Your task to perform on an android device: open a bookmark in the chrome app Image 0: 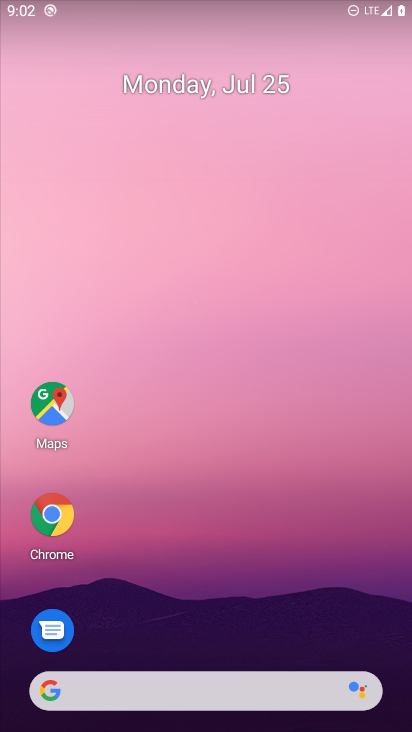
Step 0: click (26, 513)
Your task to perform on an android device: open a bookmark in the chrome app Image 1: 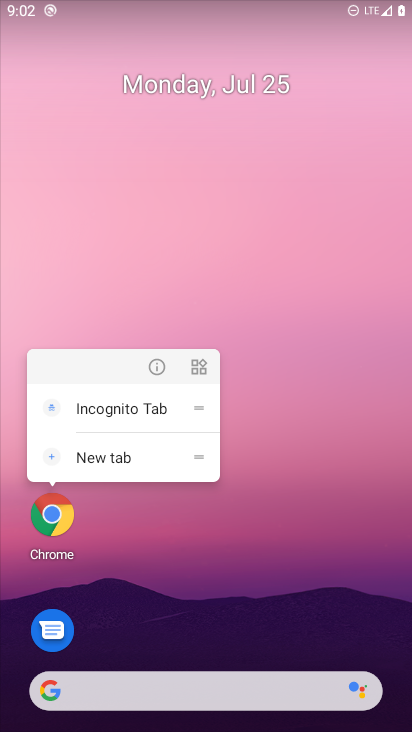
Step 1: click (65, 541)
Your task to perform on an android device: open a bookmark in the chrome app Image 2: 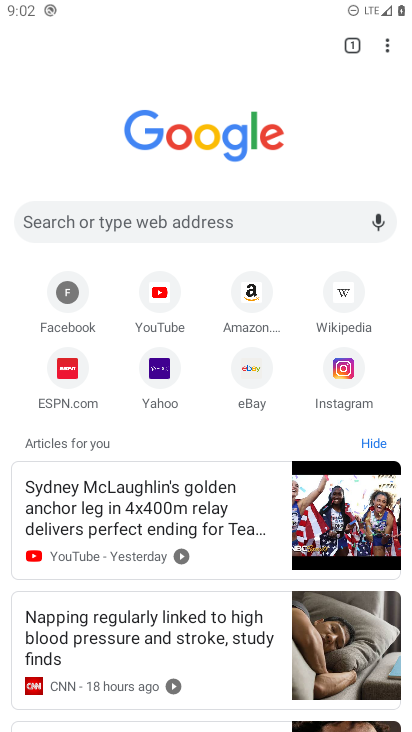
Step 2: click (386, 39)
Your task to perform on an android device: open a bookmark in the chrome app Image 3: 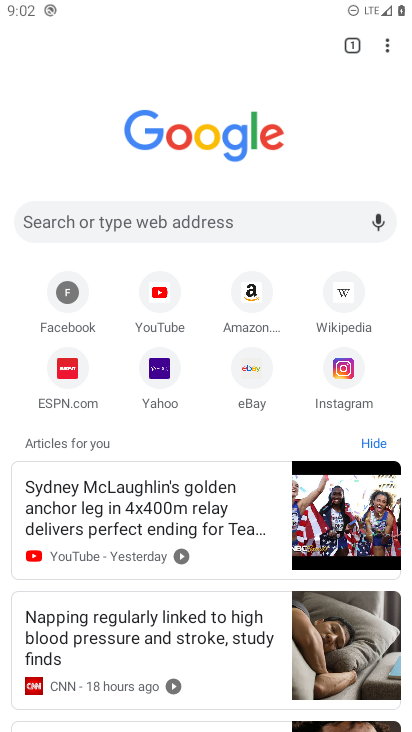
Step 3: click (387, 41)
Your task to perform on an android device: open a bookmark in the chrome app Image 4: 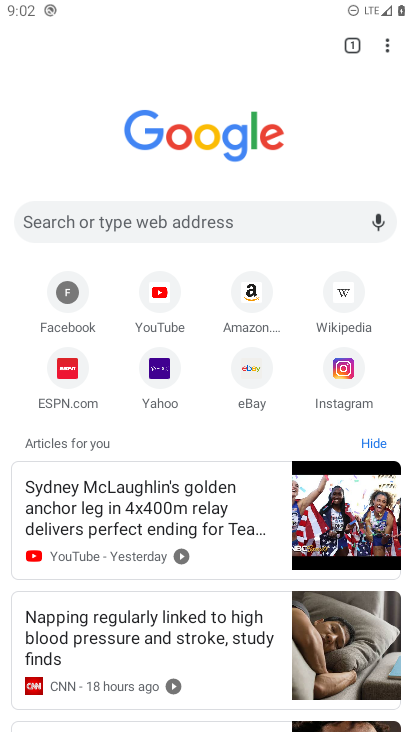
Step 4: click (390, 40)
Your task to perform on an android device: open a bookmark in the chrome app Image 5: 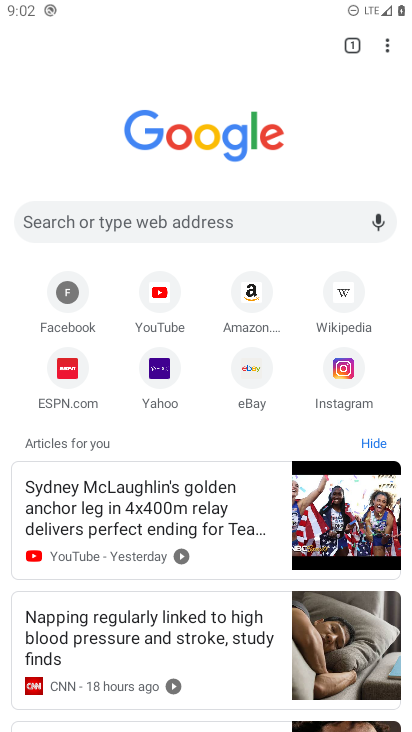
Step 5: click (390, 40)
Your task to perform on an android device: open a bookmark in the chrome app Image 6: 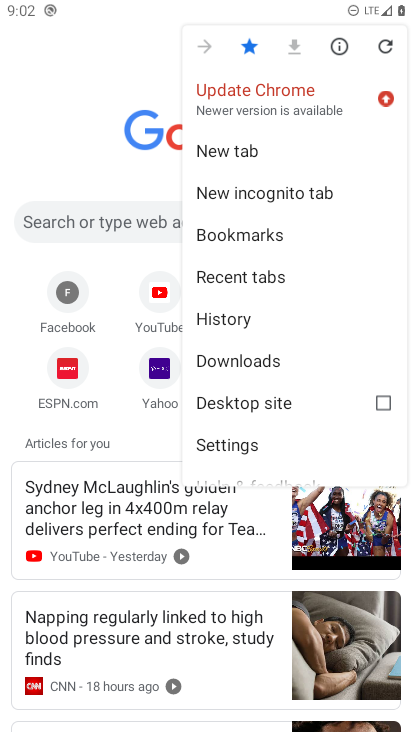
Step 6: click (236, 232)
Your task to perform on an android device: open a bookmark in the chrome app Image 7: 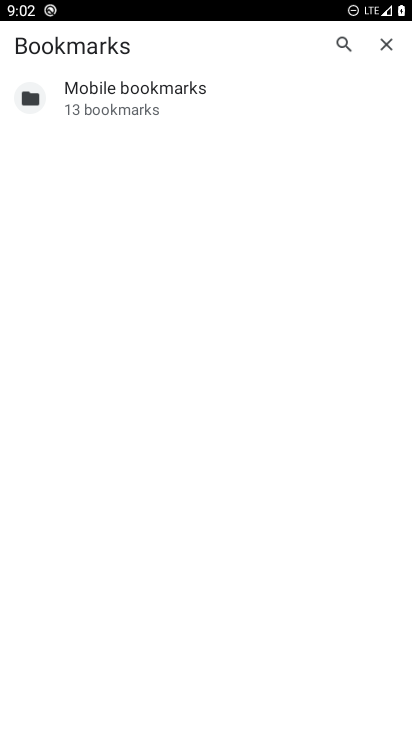
Step 7: task complete